Your task to perform on an android device: change the clock style Image 0: 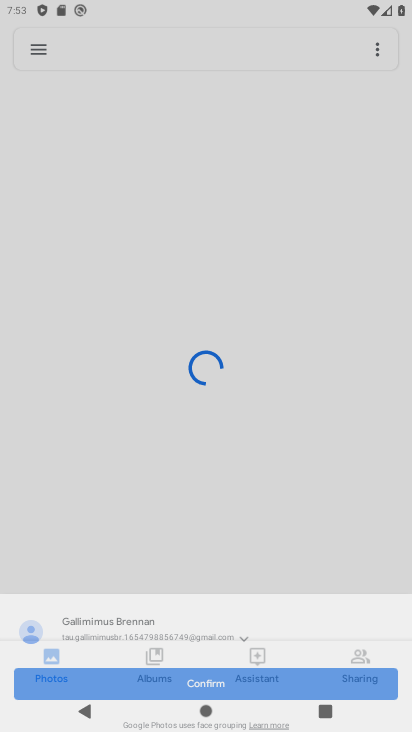
Step 0: press home button
Your task to perform on an android device: change the clock style Image 1: 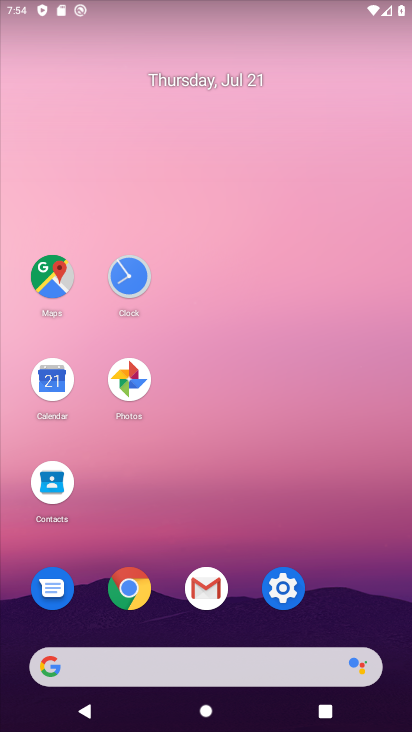
Step 1: click (129, 269)
Your task to perform on an android device: change the clock style Image 2: 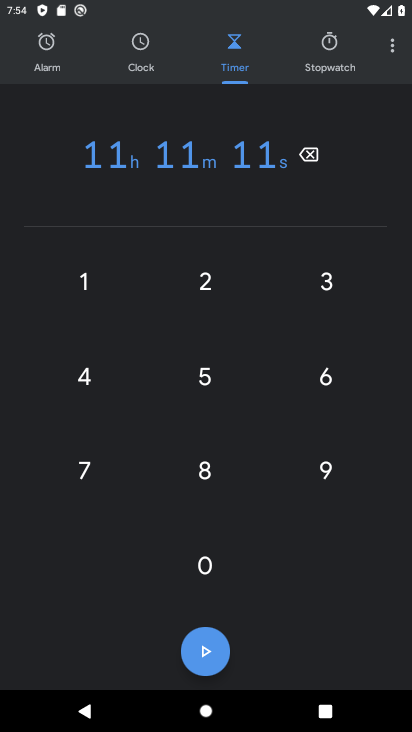
Step 2: click (392, 46)
Your task to perform on an android device: change the clock style Image 3: 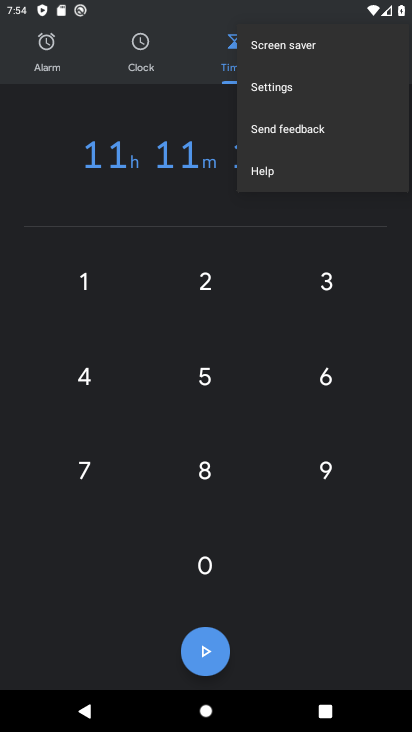
Step 3: click (282, 88)
Your task to perform on an android device: change the clock style Image 4: 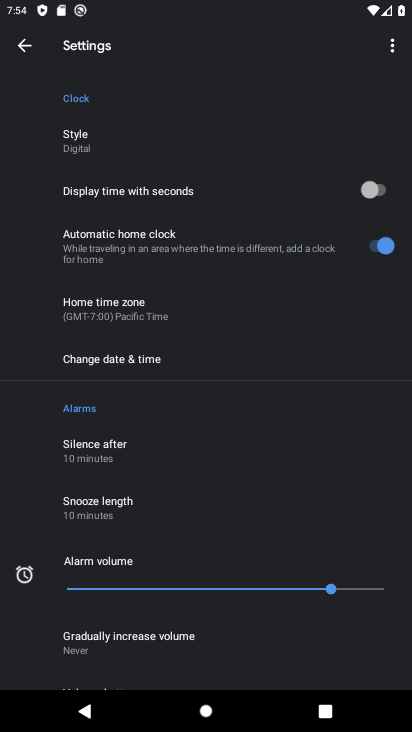
Step 4: click (70, 141)
Your task to perform on an android device: change the clock style Image 5: 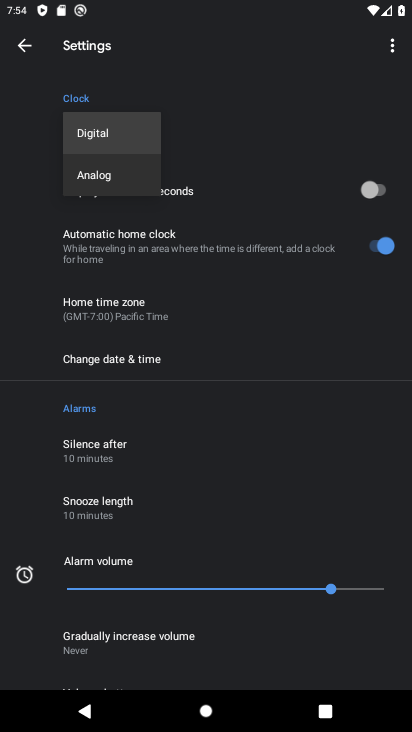
Step 5: click (98, 173)
Your task to perform on an android device: change the clock style Image 6: 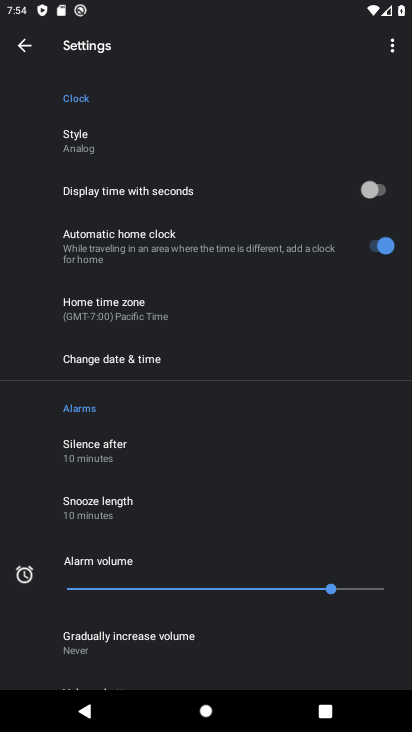
Step 6: task complete